Your task to perform on an android device: Open wifi settings Image 0: 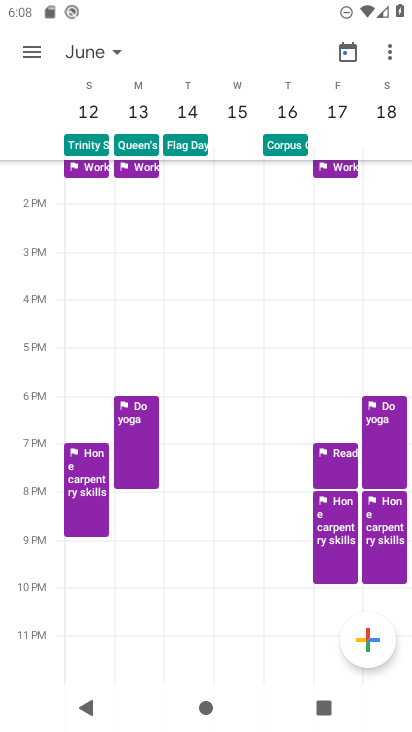
Step 0: press home button
Your task to perform on an android device: Open wifi settings Image 1: 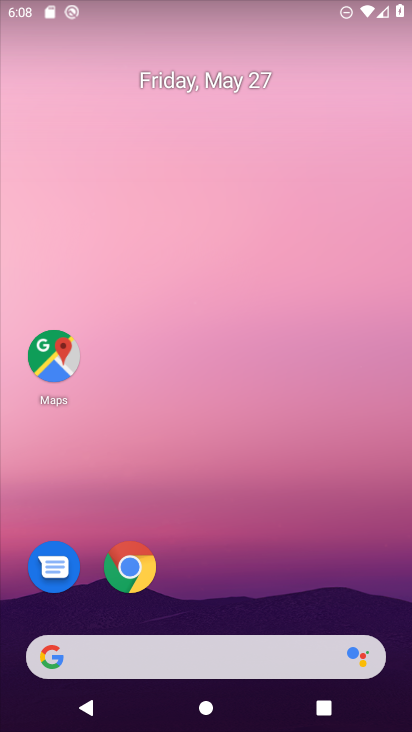
Step 1: drag from (209, 604) to (194, 110)
Your task to perform on an android device: Open wifi settings Image 2: 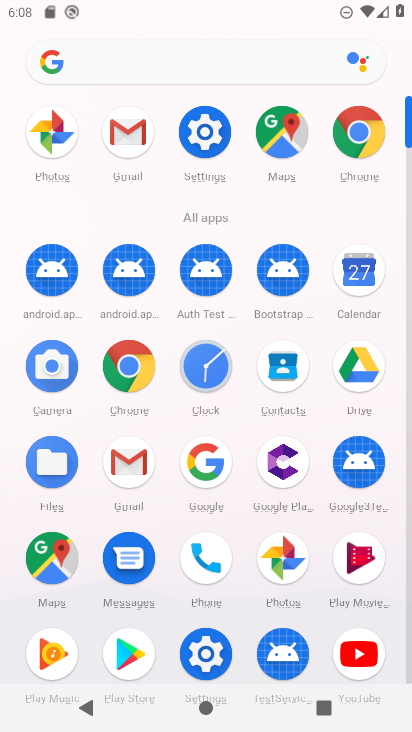
Step 2: click (197, 141)
Your task to perform on an android device: Open wifi settings Image 3: 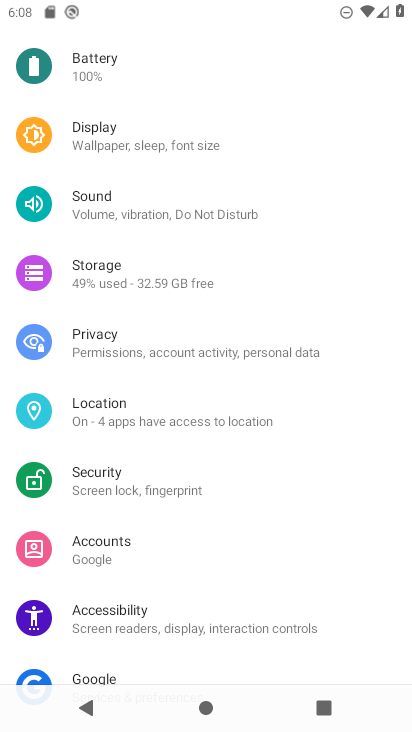
Step 3: drag from (132, 149) to (135, 625)
Your task to perform on an android device: Open wifi settings Image 4: 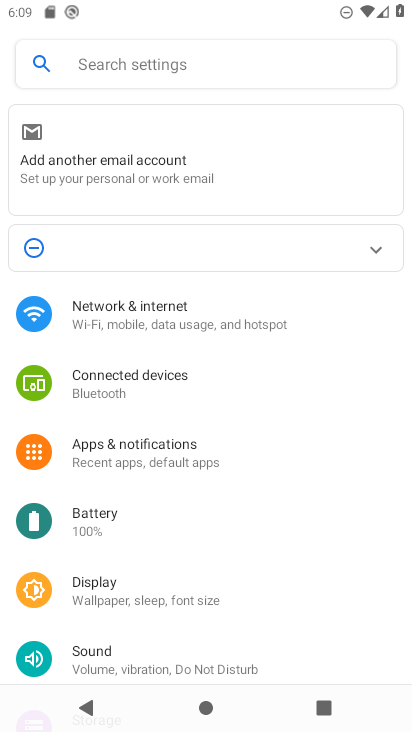
Step 4: click (103, 310)
Your task to perform on an android device: Open wifi settings Image 5: 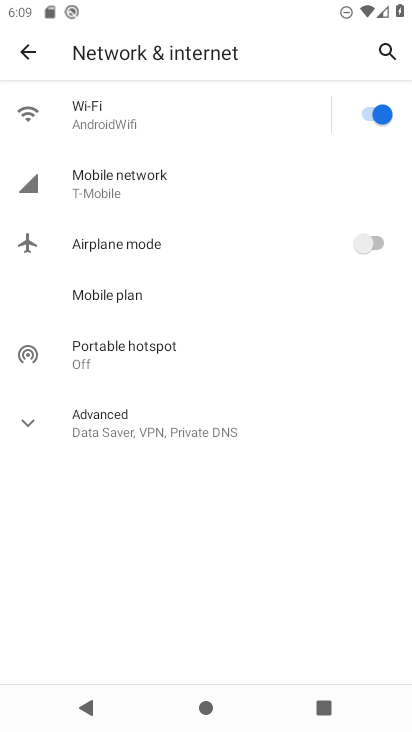
Step 5: click (151, 134)
Your task to perform on an android device: Open wifi settings Image 6: 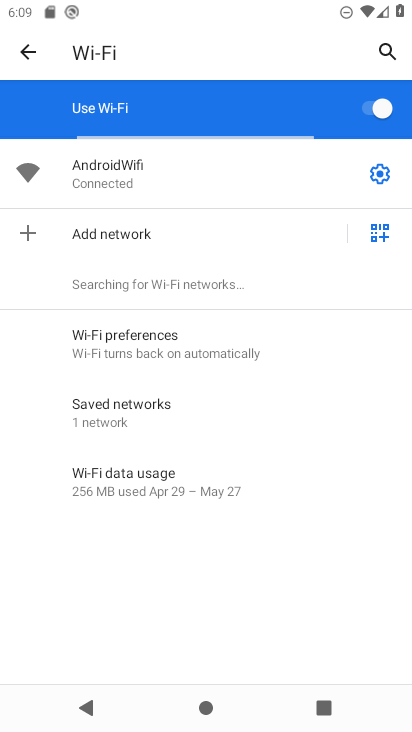
Step 6: task complete